Your task to perform on an android device: Go to privacy settings Image 0: 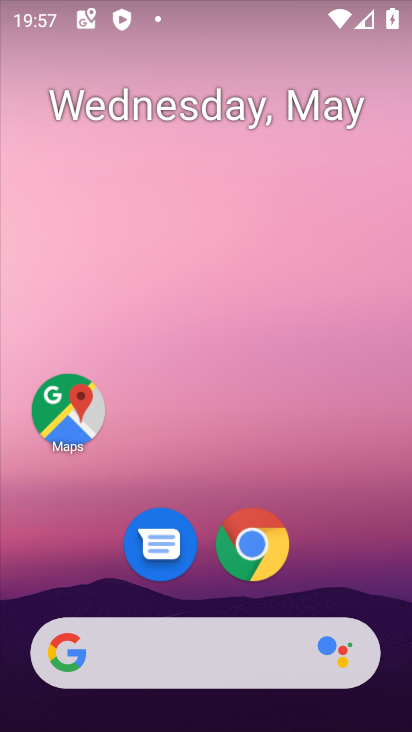
Step 0: drag from (216, 541) to (249, 62)
Your task to perform on an android device: Go to privacy settings Image 1: 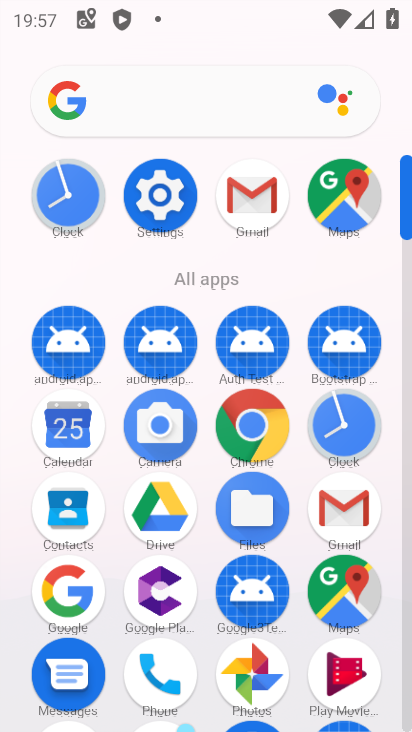
Step 1: click (152, 195)
Your task to perform on an android device: Go to privacy settings Image 2: 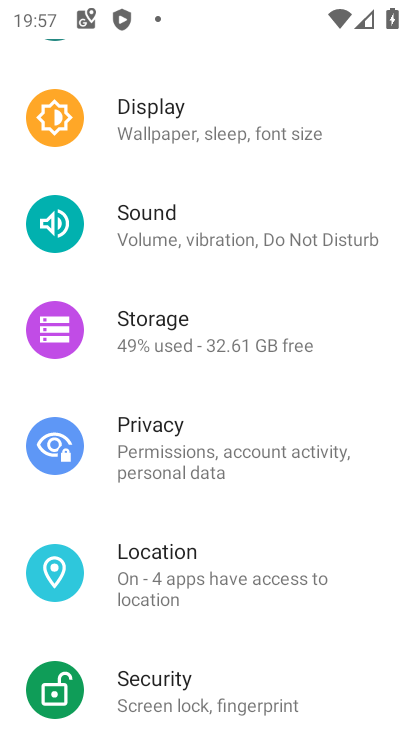
Step 2: click (142, 452)
Your task to perform on an android device: Go to privacy settings Image 3: 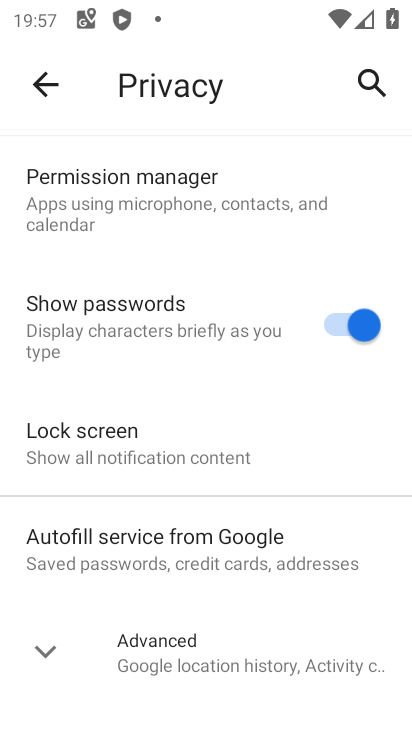
Step 3: task complete